Your task to perform on an android device: Clear the cart on costco. Search for corsair k70 on costco, select the first entry, and add it to the cart. Image 0: 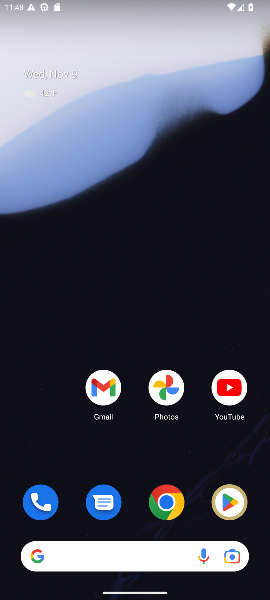
Step 0: drag from (137, 464) to (141, 96)
Your task to perform on an android device: Clear the cart on costco. Search for corsair k70 on costco, select the first entry, and add it to the cart. Image 1: 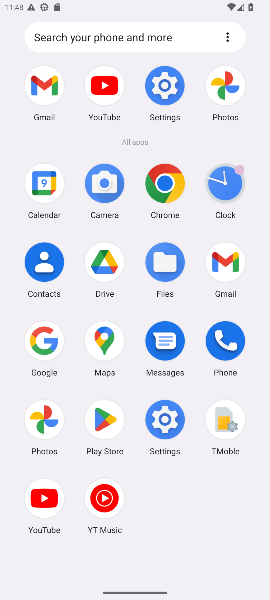
Step 1: click (160, 185)
Your task to perform on an android device: Clear the cart on costco. Search for corsair k70 on costco, select the first entry, and add it to the cart. Image 2: 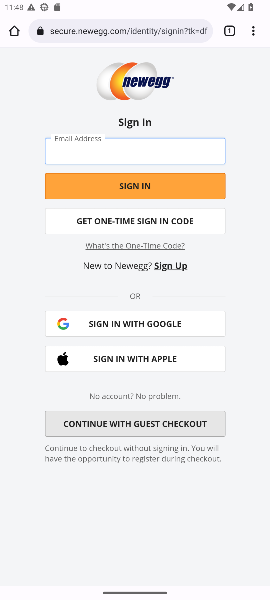
Step 2: click (109, 32)
Your task to perform on an android device: Clear the cart on costco. Search for corsair k70 on costco, select the first entry, and add it to the cart. Image 3: 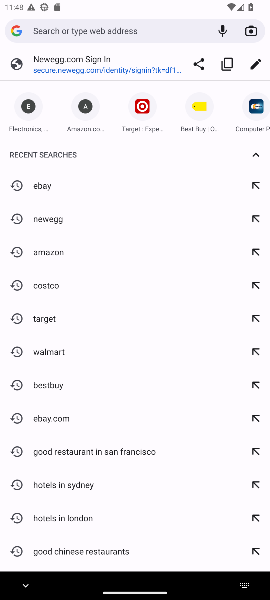
Step 3: type "costco.com"
Your task to perform on an android device: Clear the cart on costco. Search for corsair k70 on costco, select the first entry, and add it to the cart. Image 4: 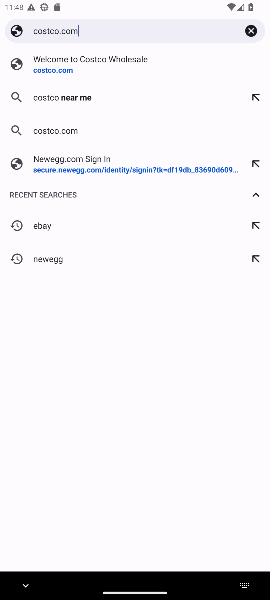
Step 4: press enter
Your task to perform on an android device: Clear the cart on costco. Search for corsair k70 on costco, select the first entry, and add it to the cart. Image 5: 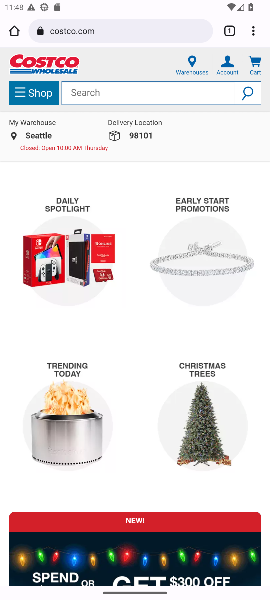
Step 5: click (257, 62)
Your task to perform on an android device: Clear the cart on costco. Search for corsair k70 on costco, select the first entry, and add it to the cart. Image 6: 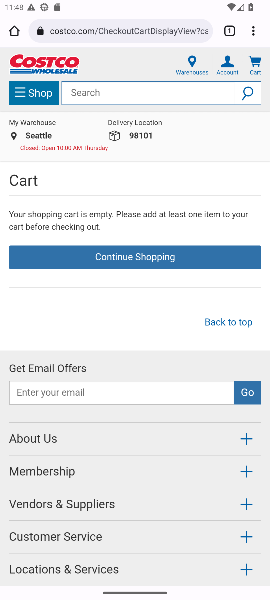
Step 6: click (120, 97)
Your task to perform on an android device: Clear the cart on costco. Search for corsair k70 on costco, select the first entry, and add it to the cart. Image 7: 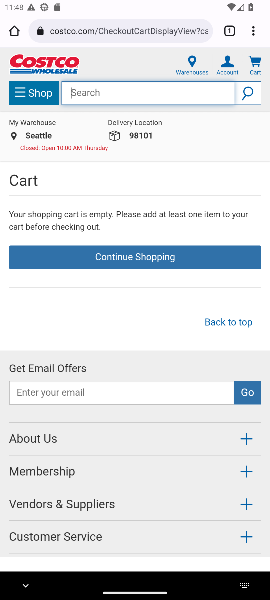
Step 7: type "corsair k70"
Your task to perform on an android device: Clear the cart on costco. Search for corsair k70 on costco, select the first entry, and add it to the cart. Image 8: 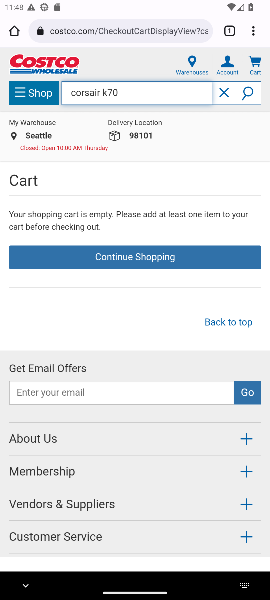
Step 8: press enter
Your task to perform on an android device: Clear the cart on costco. Search for corsair k70 on costco, select the first entry, and add it to the cart. Image 9: 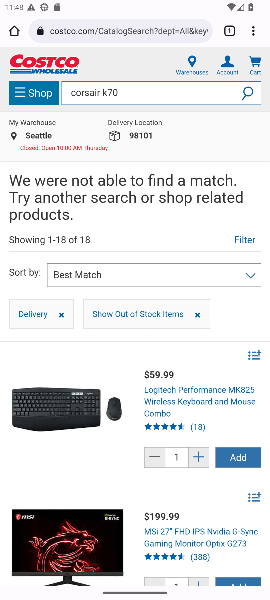
Step 9: drag from (80, 539) to (80, 145)
Your task to perform on an android device: Clear the cart on costco. Search for corsair k70 on costco, select the first entry, and add it to the cart. Image 10: 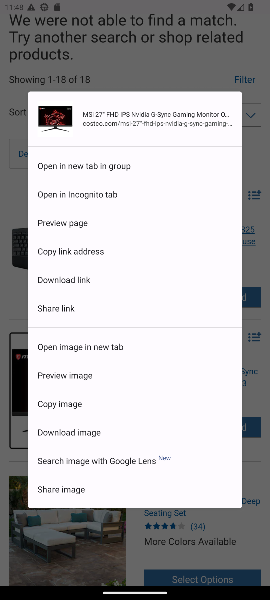
Step 10: click (22, 345)
Your task to perform on an android device: Clear the cart on costco. Search for corsair k70 on costco, select the first entry, and add it to the cart. Image 11: 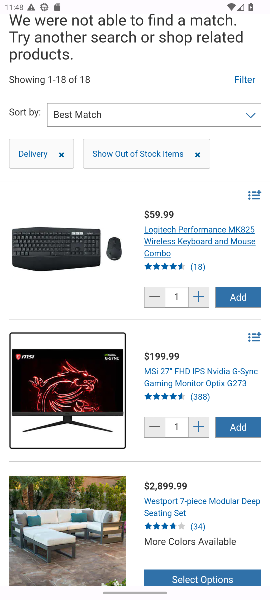
Step 11: task complete